Your task to perform on an android device: Open Chrome and go to settings Image 0: 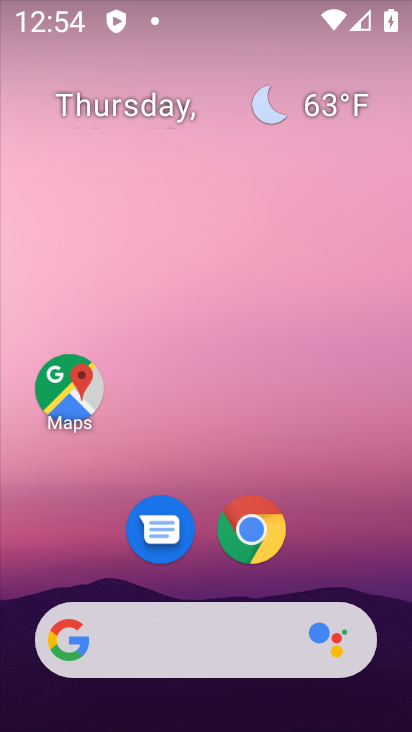
Step 0: click (253, 529)
Your task to perform on an android device: Open Chrome and go to settings Image 1: 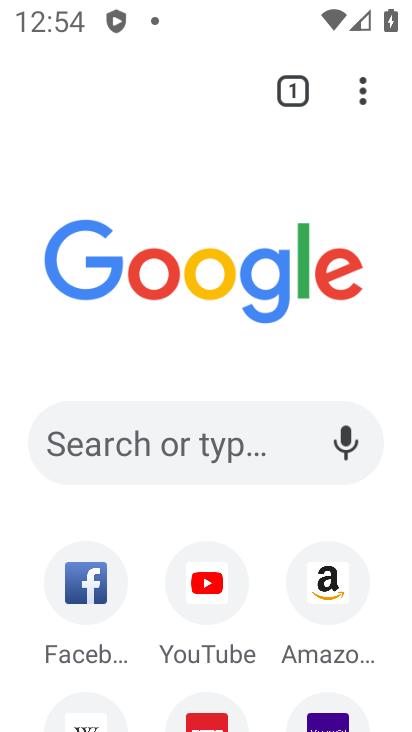
Step 1: click (365, 97)
Your task to perform on an android device: Open Chrome and go to settings Image 2: 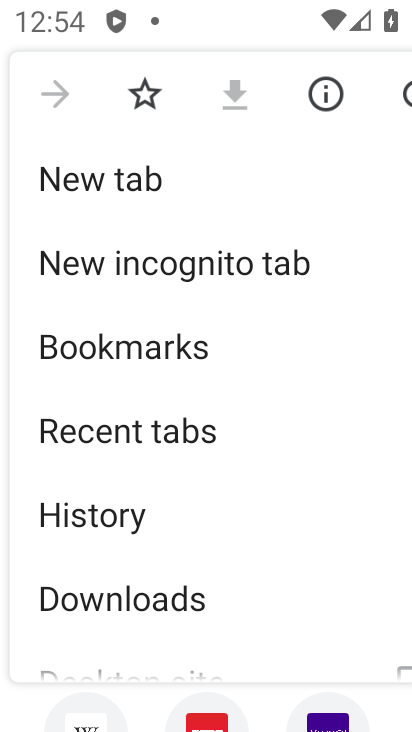
Step 2: drag from (184, 509) to (218, 370)
Your task to perform on an android device: Open Chrome and go to settings Image 3: 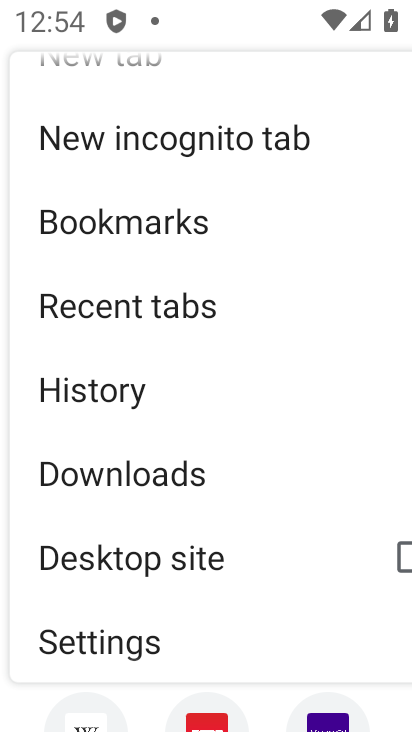
Step 3: drag from (150, 531) to (222, 436)
Your task to perform on an android device: Open Chrome and go to settings Image 4: 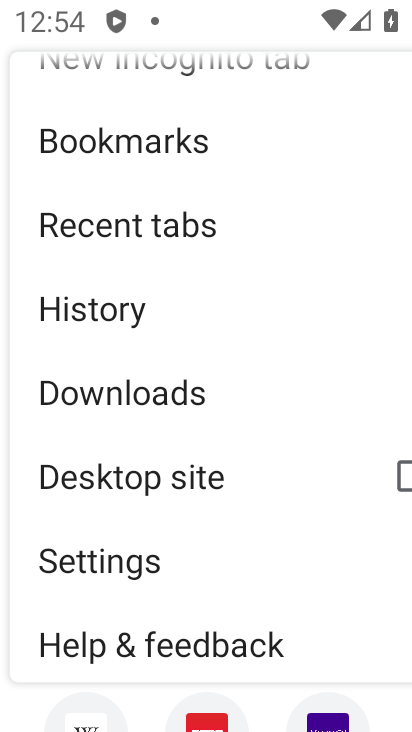
Step 4: click (102, 561)
Your task to perform on an android device: Open Chrome and go to settings Image 5: 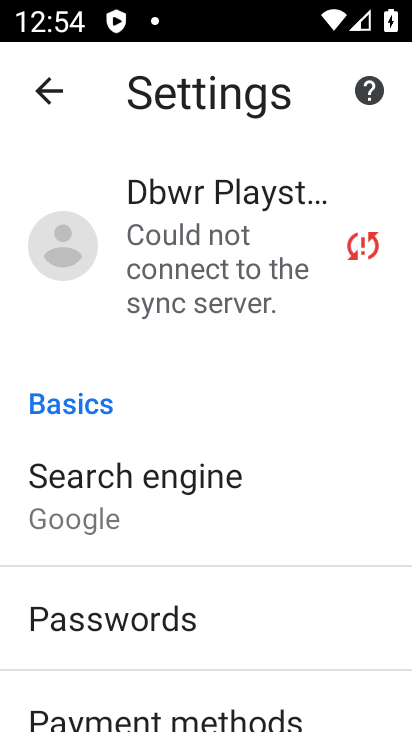
Step 5: task complete